Your task to perform on an android device: Open Google Image 0: 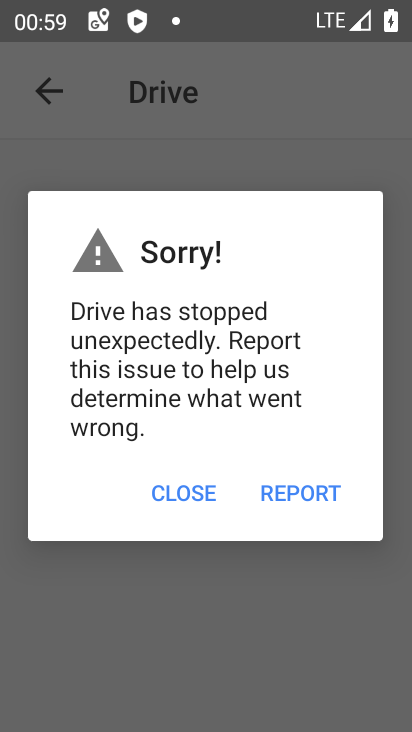
Step 0: press home button
Your task to perform on an android device: Open Google Image 1: 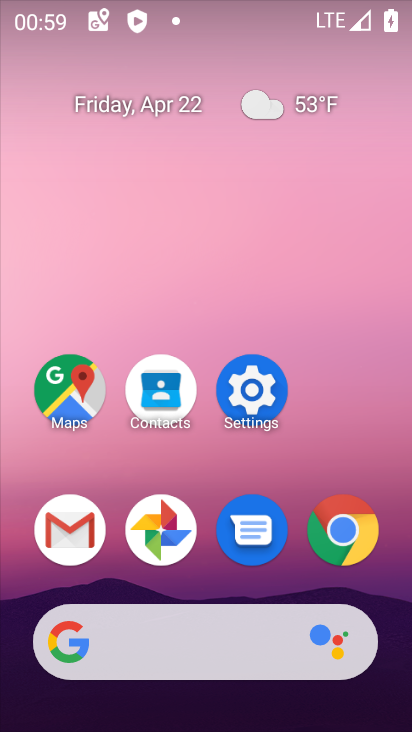
Step 1: click (153, 637)
Your task to perform on an android device: Open Google Image 2: 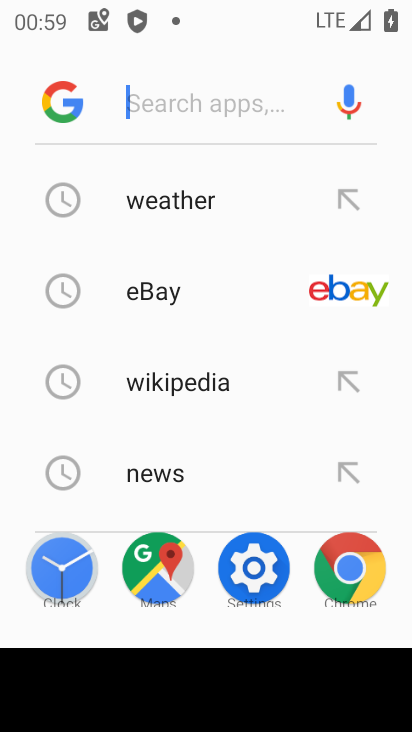
Step 2: click (113, 645)
Your task to perform on an android device: Open Google Image 3: 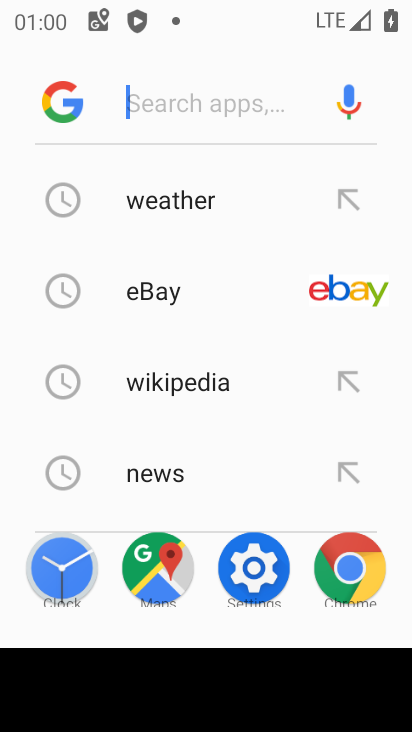
Step 3: click (64, 99)
Your task to perform on an android device: Open Google Image 4: 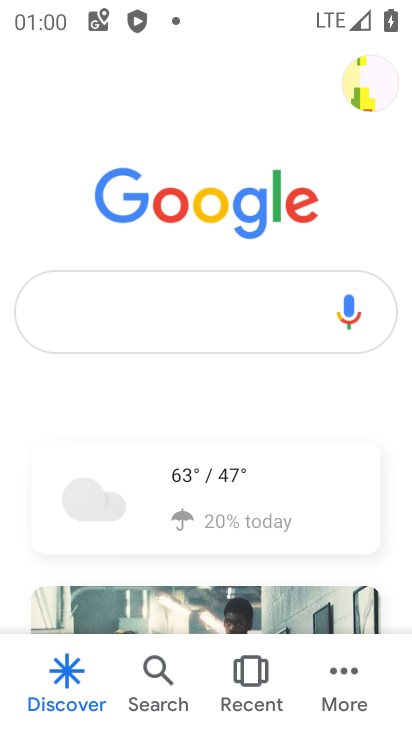
Step 4: task complete